Your task to perform on an android device: toggle data saver in the chrome app Image 0: 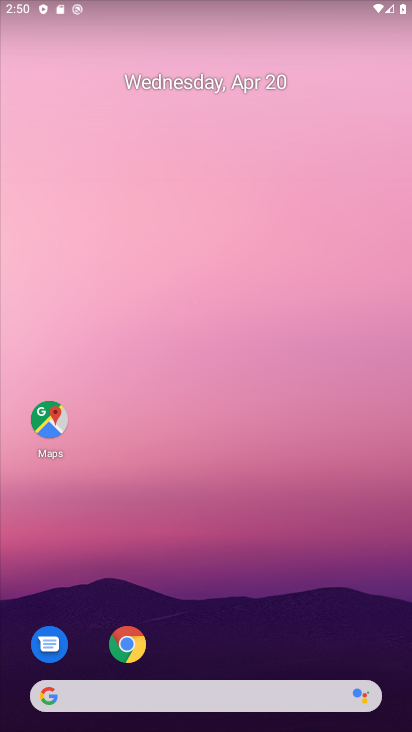
Step 0: click (130, 651)
Your task to perform on an android device: toggle data saver in the chrome app Image 1: 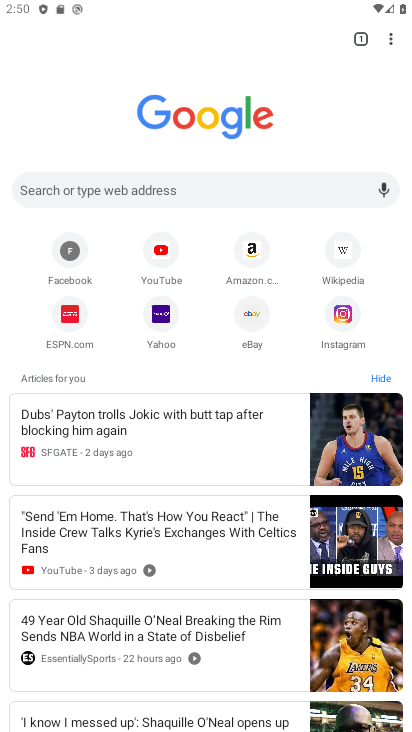
Step 1: click (389, 36)
Your task to perform on an android device: toggle data saver in the chrome app Image 2: 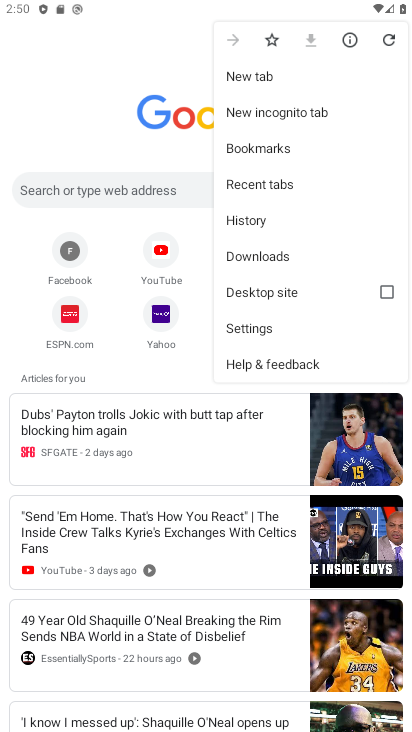
Step 2: click (271, 330)
Your task to perform on an android device: toggle data saver in the chrome app Image 3: 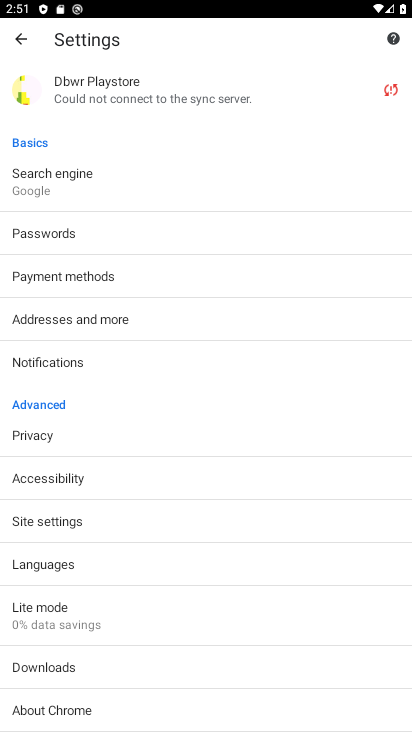
Step 3: click (86, 617)
Your task to perform on an android device: toggle data saver in the chrome app Image 4: 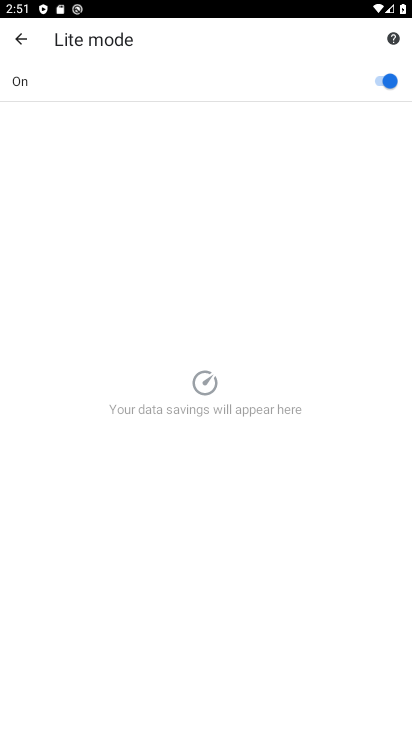
Step 4: task complete